Your task to perform on an android device: Open network settings Image 0: 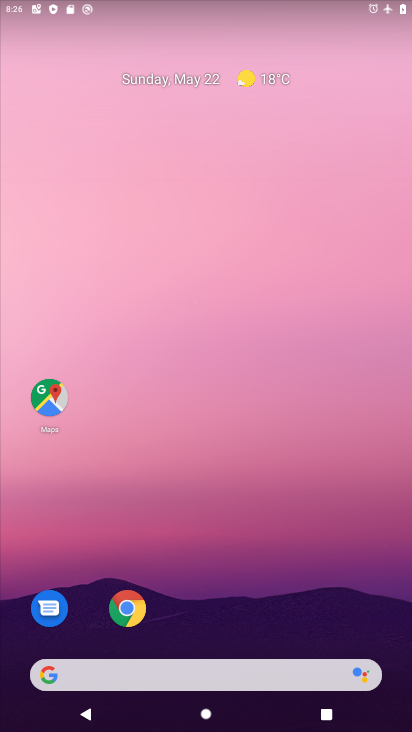
Step 0: drag from (223, 727) to (230, 62)
Your task to perform on an android device: Open network settings Image 1: 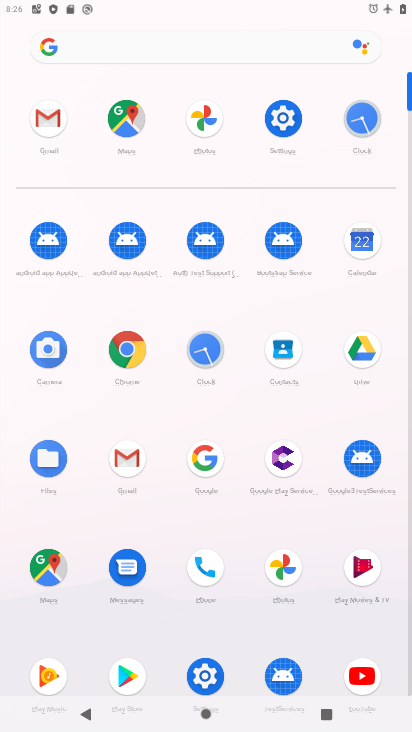
Step 1: click (275, 115)
Your task to perform on an android device: Open network settings Image 2: 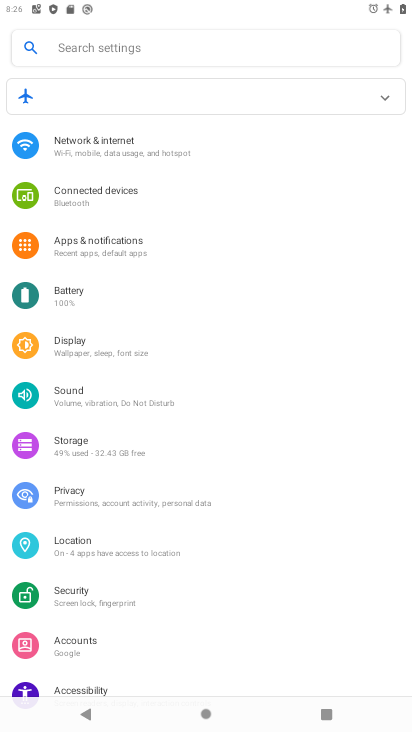
Step 2: click (104, 150)
Your task to perform on an android device: Open network settings Image 3: 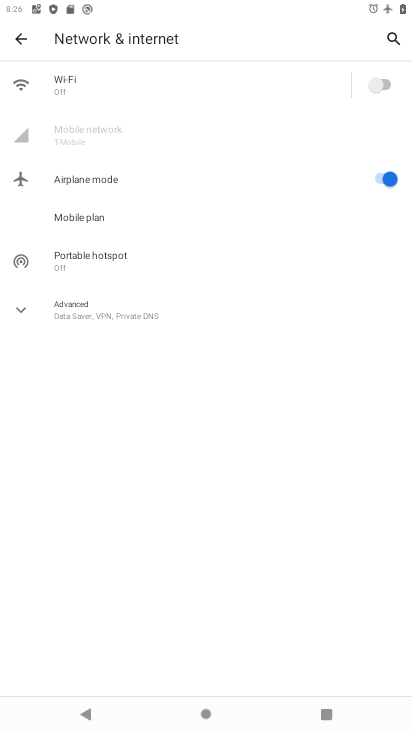
Step 3: click (361, 181)
Your task to perform on an android device: Open network settings Image 4: 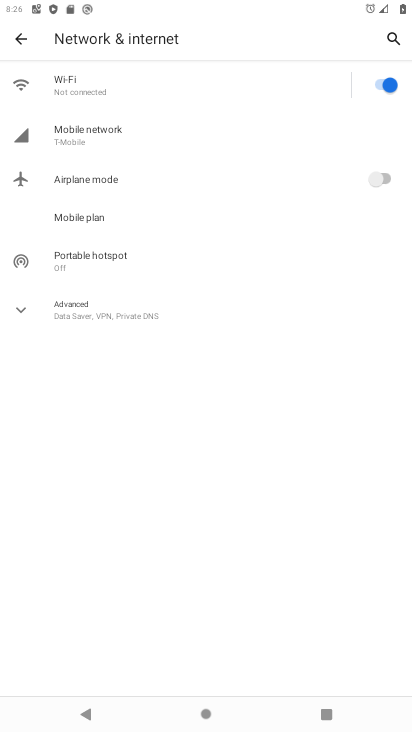
Step 4: click (136, 131)
Your task to perform on an android device: Open network settings Image 5: 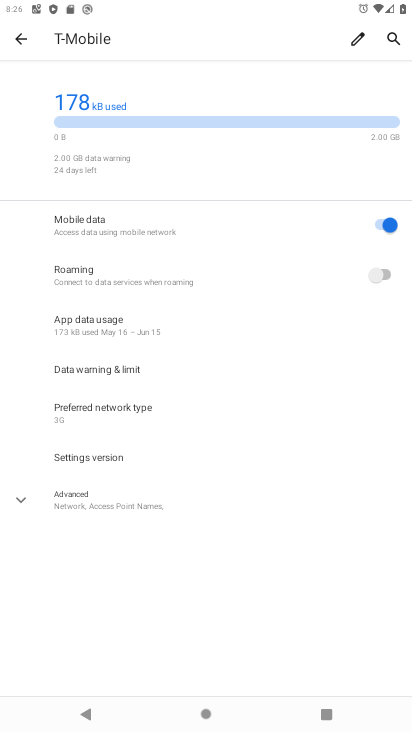
Step 5: task complete